Your task to perform on an android device: change notification settings in the gmail app Image 0: 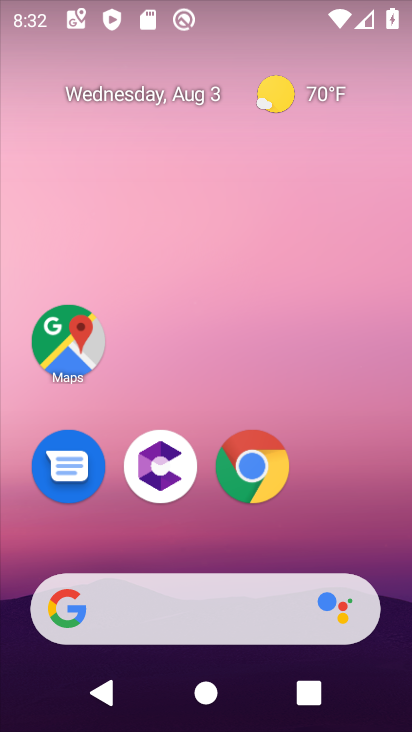
Step 0: drag from (349, 532) to (333, 114)
Your task to perform on an android device: change notification settings in the gmail app Image 1: 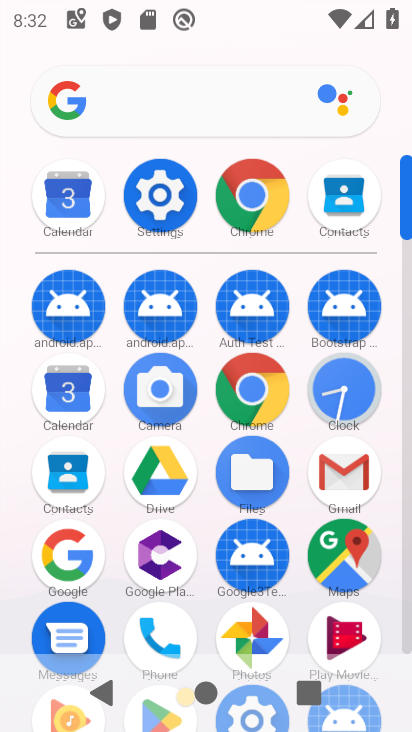
Step 1: click (346, 471)
Your task to perform on an android device: change notification settings in the gmail app Image 2: 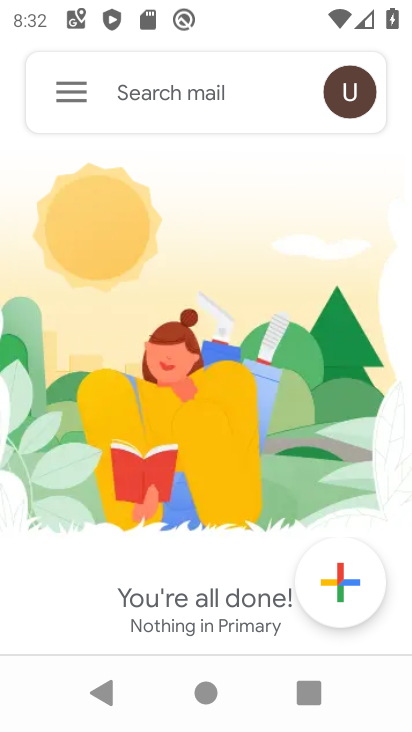
Step 2: click (67, 90)
Your task to perform on an android device: change notification settings in the gmail app Image 3: 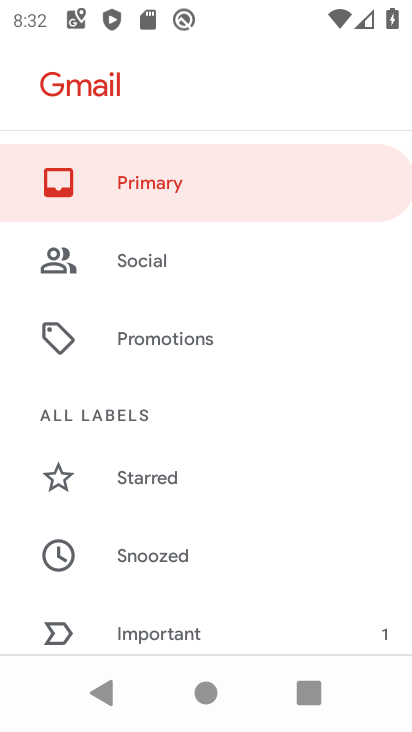
Step 3: drag from (208, 490) to (269, 166)
Your task to perform on an android device: change notification settings in the gmail app Image 4: 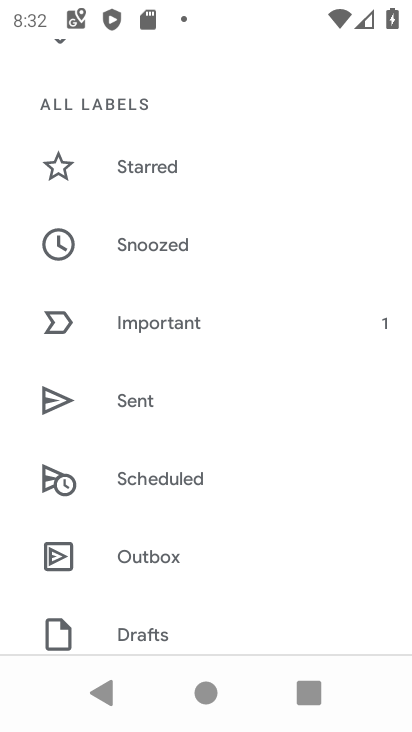
Step 4: drag from (222, 561) to (283, 174)
Your task to perform on an android device: change notification settings in the gmail app Image 5: 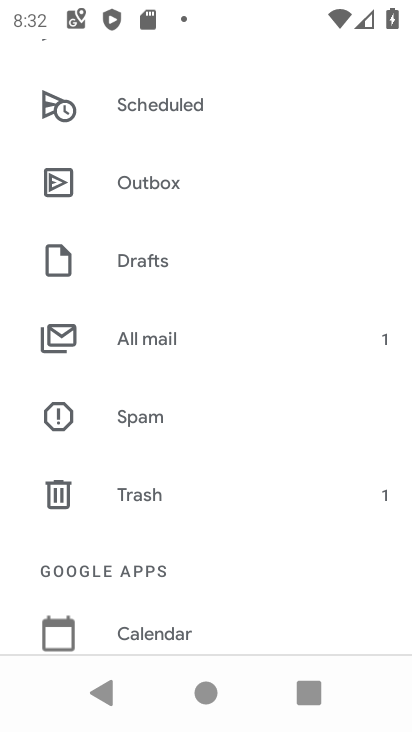
Step 5: drag from (241, 568) to (275, 215)
Your task to perform on an android device: change notification settings in the gmail app Image 6: 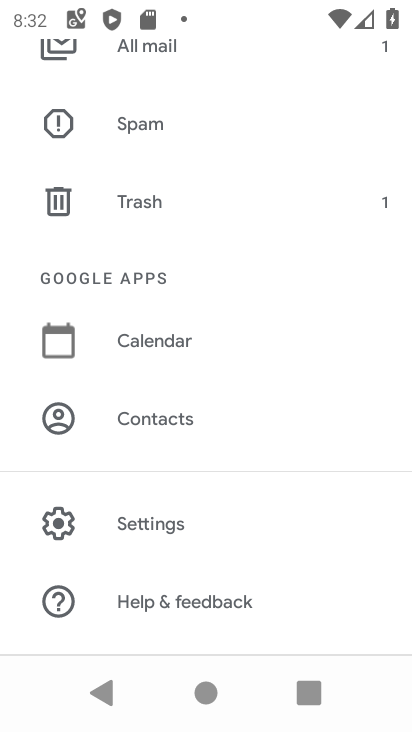
Step 6: click (108, 542)
Your task to perform on an android device: change notification settings in the gmail app Image 7: 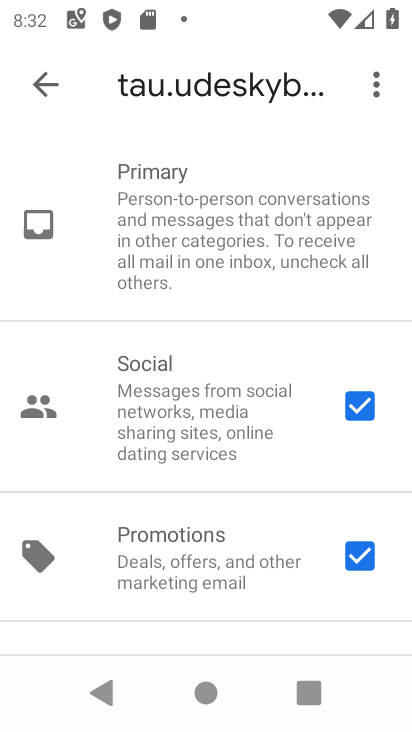
Step 7: click (40, 86)
Your task to perform on an android device: change notification settings in the gmail app Image 8: 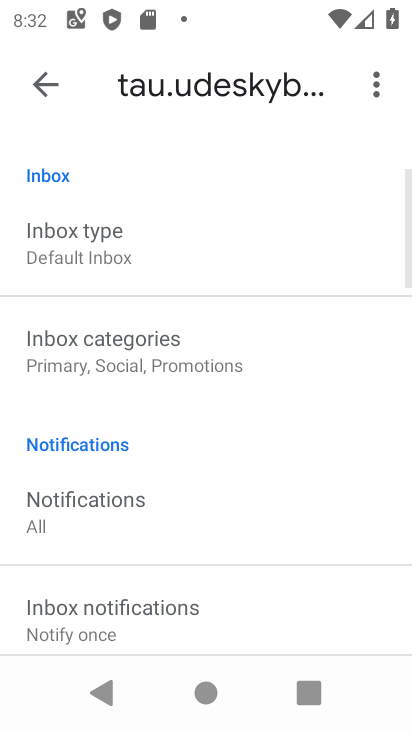
Step 8: drag from (303, 202) to (272, 586)
Your task to perform on an android device: change notification settings in the gmail app Image 9: 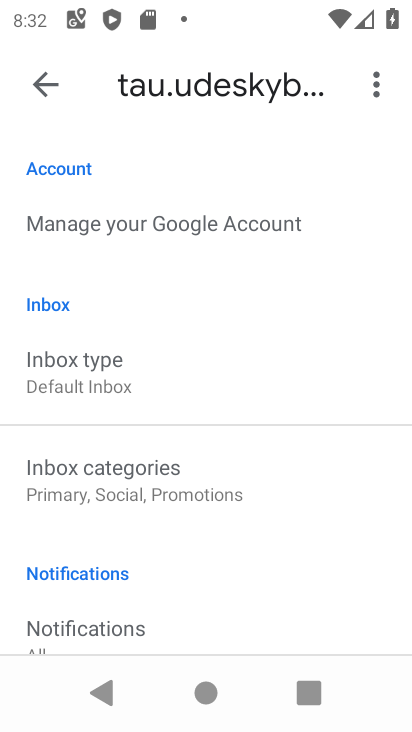
Step 9: drag from (158, 564) to (207, 288)
Your task to perform on an android device: change notification settings in the gmail app Image 10: 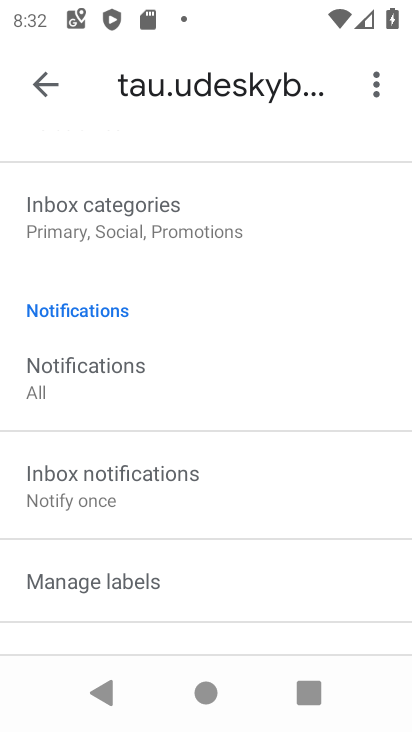
Step 10: drag from (339, 475) to (332, 255)
Your task to perform on an android device: change notification settings in the gmail app Image 11: 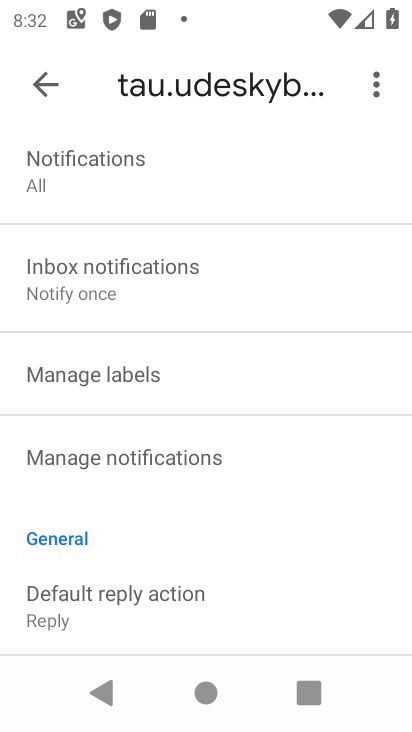
Step 11: click (156, 462)
Your task to perform on an android device: change notification settings in the gmail app Image 12: 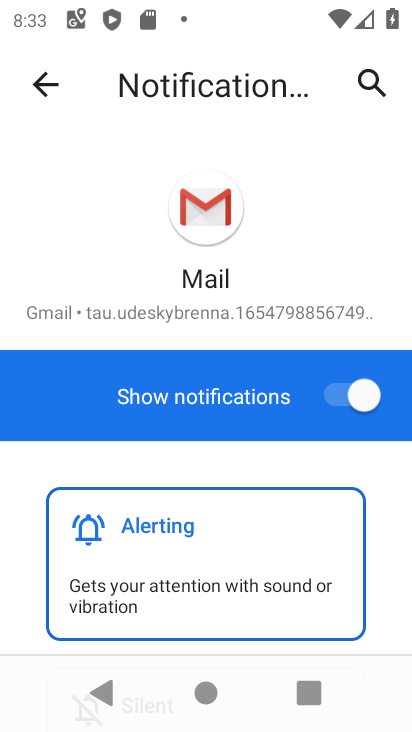
Step 12: click (319, 396)
Your task to perform on an android device: change notification settings in the gmail app Image 13: 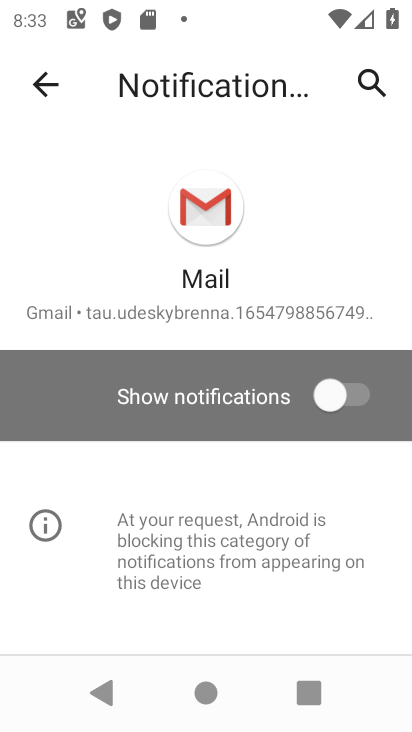
Step 13: task complete